Your task to perform on an android device: Open privacy settings Image 0: 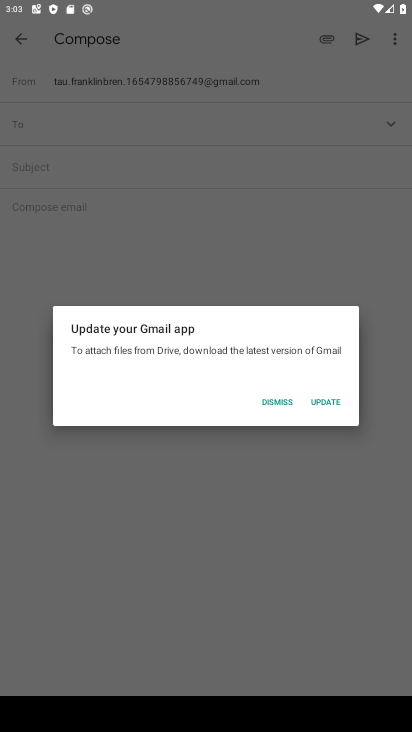
Step 0: press home button
Your task to perform on an android device: Open privacy settings Image 1: 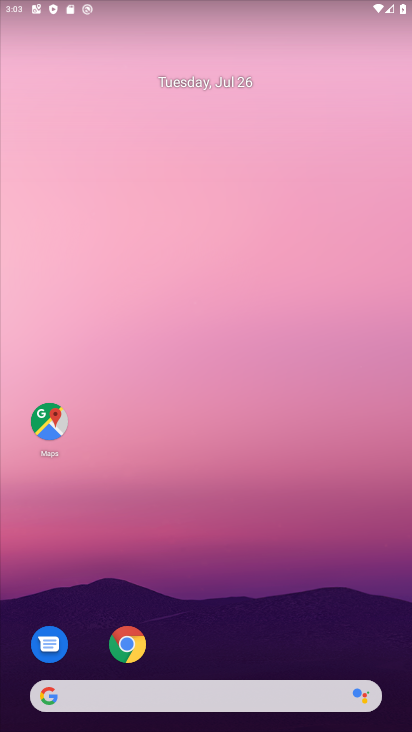
Step 1: drag from (190, 686) to (213, 172)
Your task to perform on an android device: Open privacy settings Image 2: 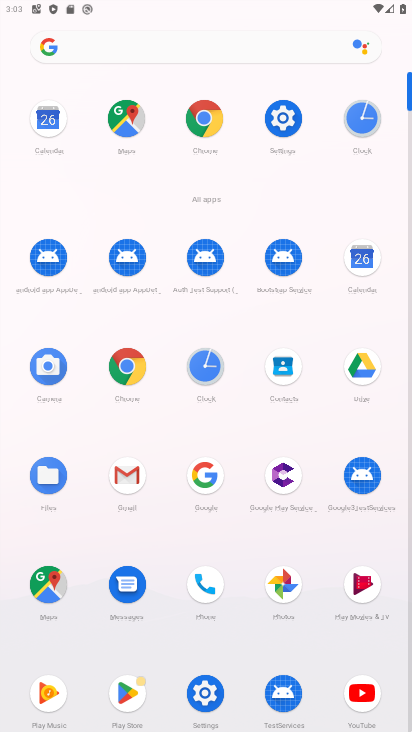
Step 2: click (212, 682)
Your task to perform on an android device: Open privacy settings Image 3: 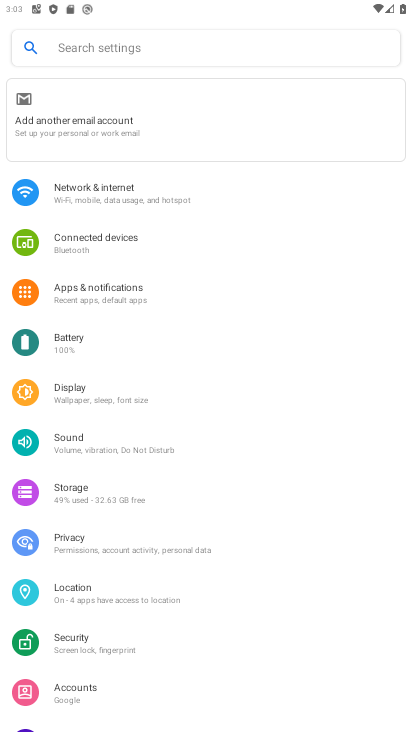
Step 3: click (80, 545)
Your task to perform on an android device: Open privacy settings Image 4: 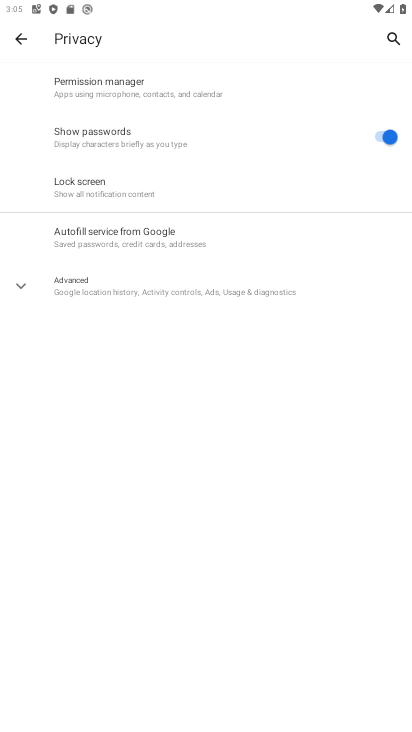
Step 4: click (125, 275)
Your task to perform on an android device: Open privacy settings Image 5: 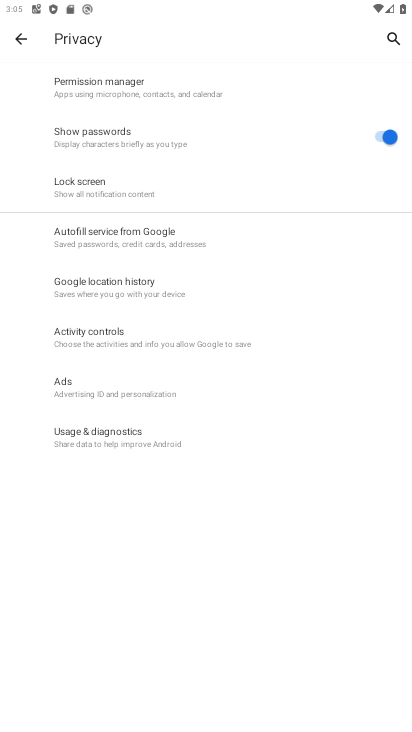
Step 5: task complete